Your task to perform on an android device: Check the news Image 0: 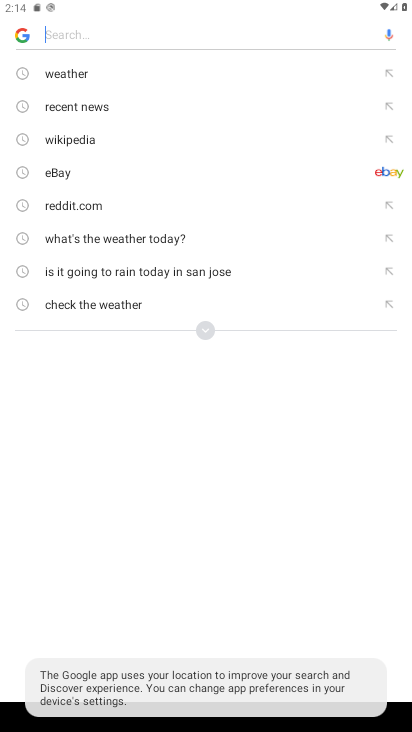
Step 0: press home button
Your task to perform on an android device: Check the news Image 1: 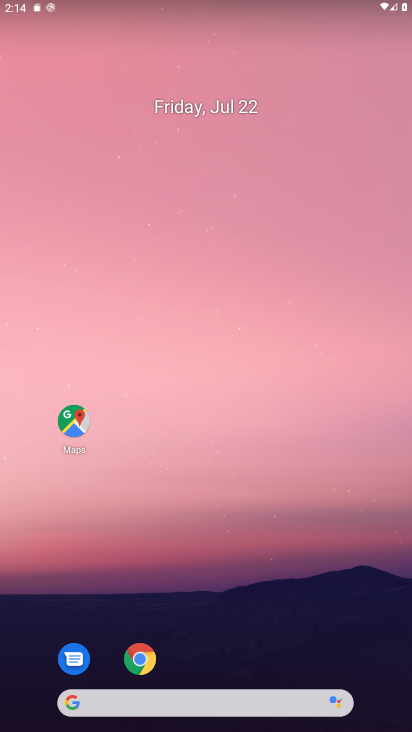
Step 1: drag from (271, 665) to (313, 15)
Your task to perform on an android device: Check the news Image 2: 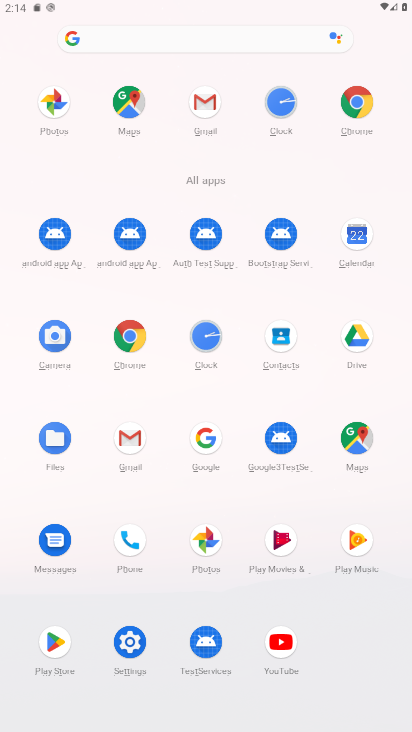
Step 2: click (358, 125)
Your task to perform on an android device: Check the news Image 3: 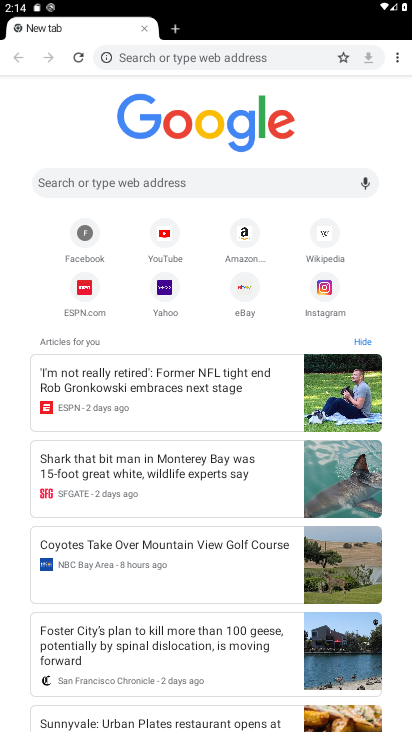
Step 3: click (304, 188)
Your task to perform on an android device: Check the news Image 4: 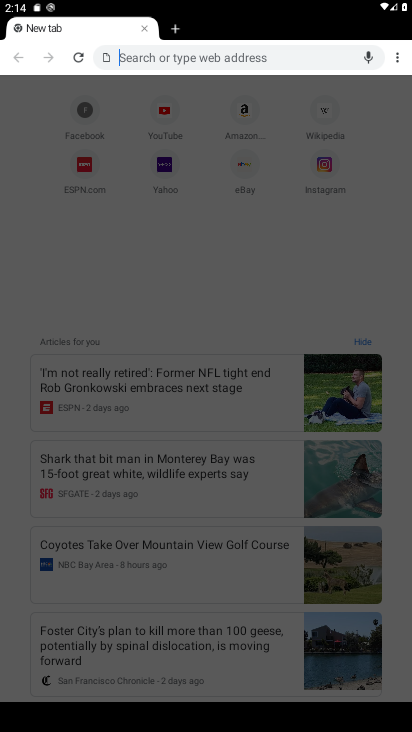
Step 4: type "news"
Your task to perform on an android device: Check the news Image 5: 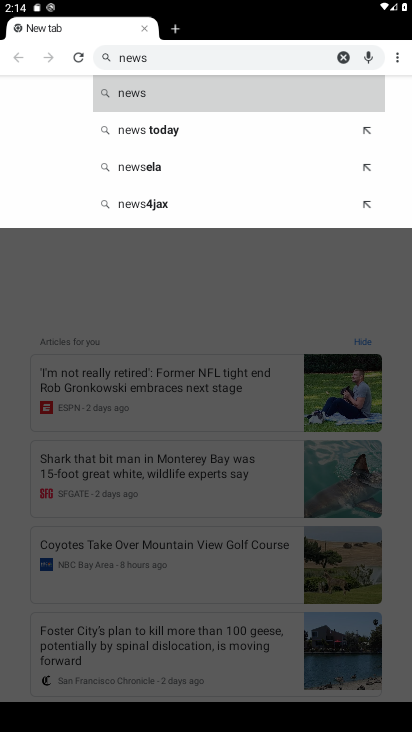
Step 5: click (260, 96)
Your task to perform on an android device: Check the news Image 6: 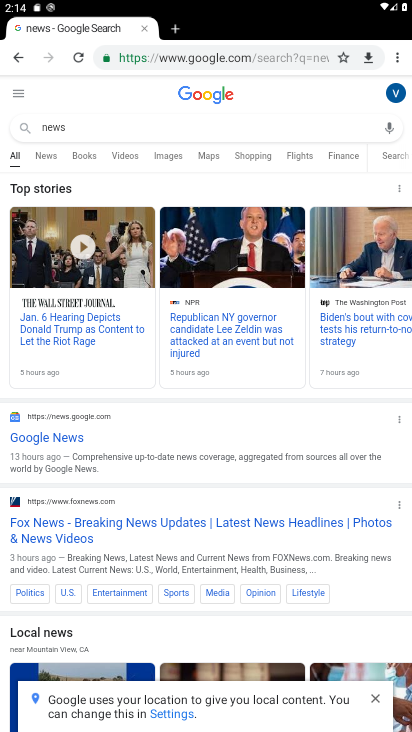
Step 6: task complete